Your task to perform on an android device: uninstall "Google Play Music" Image 0: 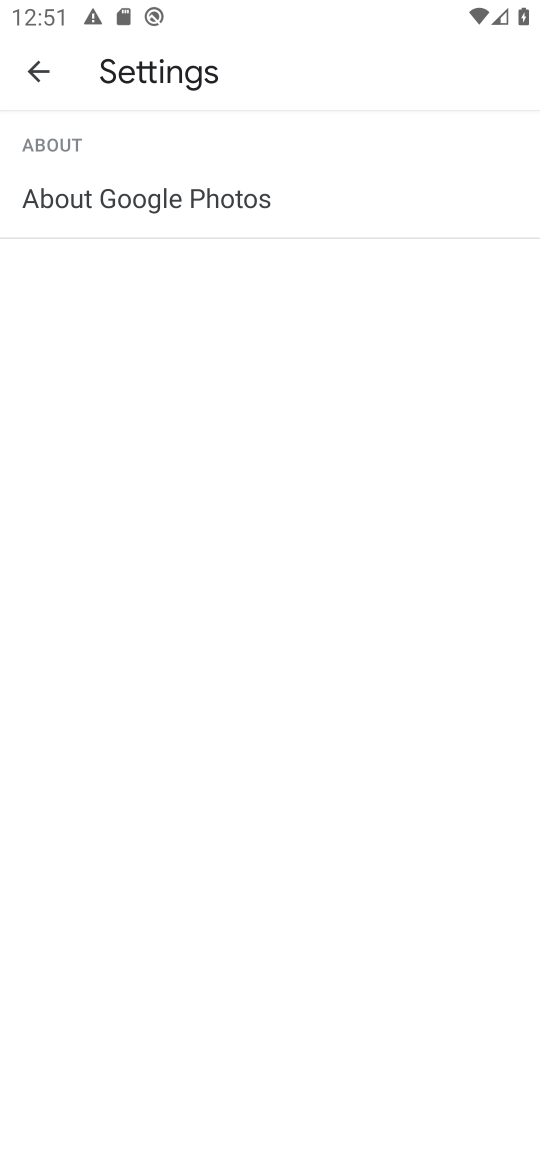
Step 0: press home button
Your task to perform on an android device: uninstall "Google Play Music" Image 1: 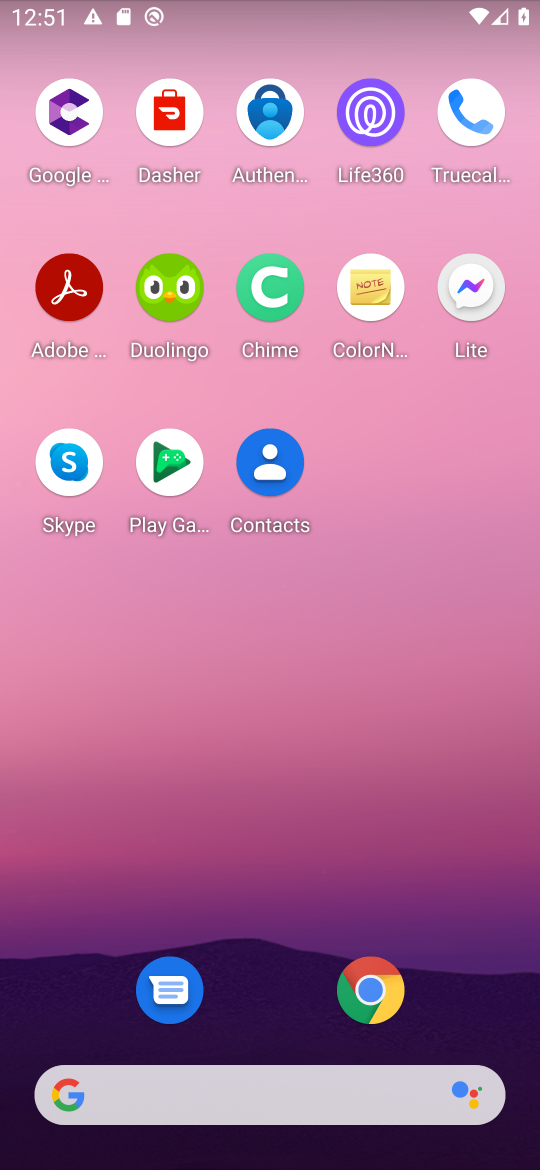
Step 1: drag from (223, 1011) to (260, 278)
Your task to perform on an android device: uninstall "Google Play Music" Image 2: 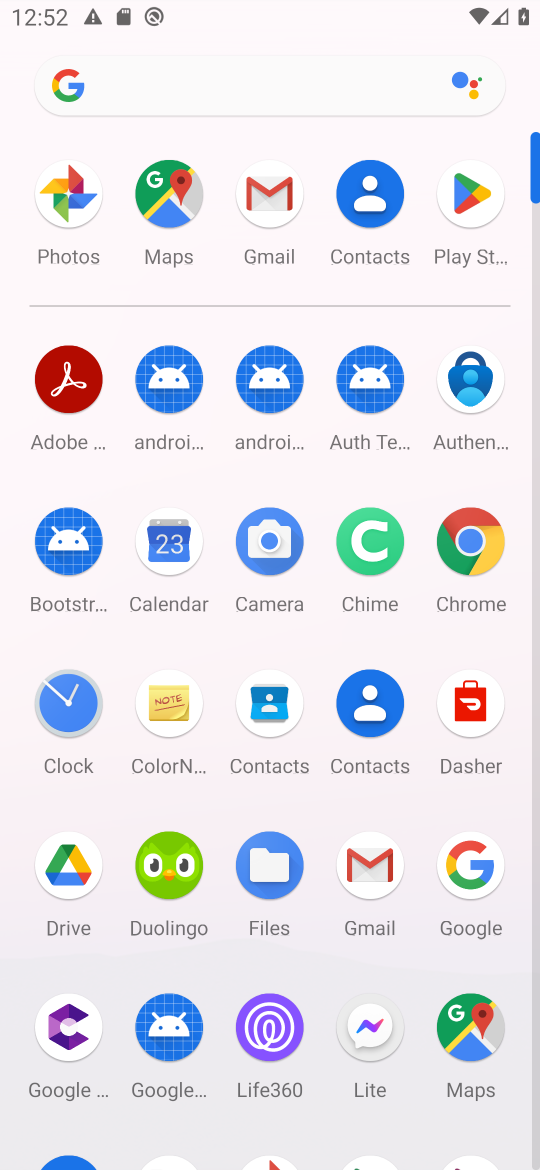
Step 2: click (455, 189)
Your task to perform on an android device: uninstall "Google Play Music" Image 3: 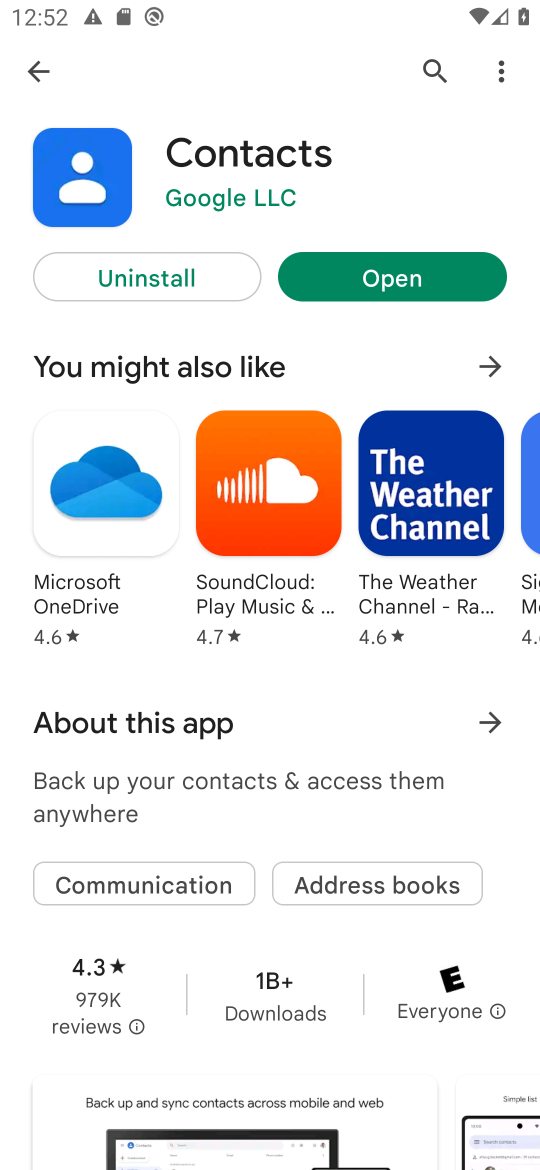
Step 3: click (44, 70)
Your task to perform on an android device: uninstall "Google Play Music" Image 4: 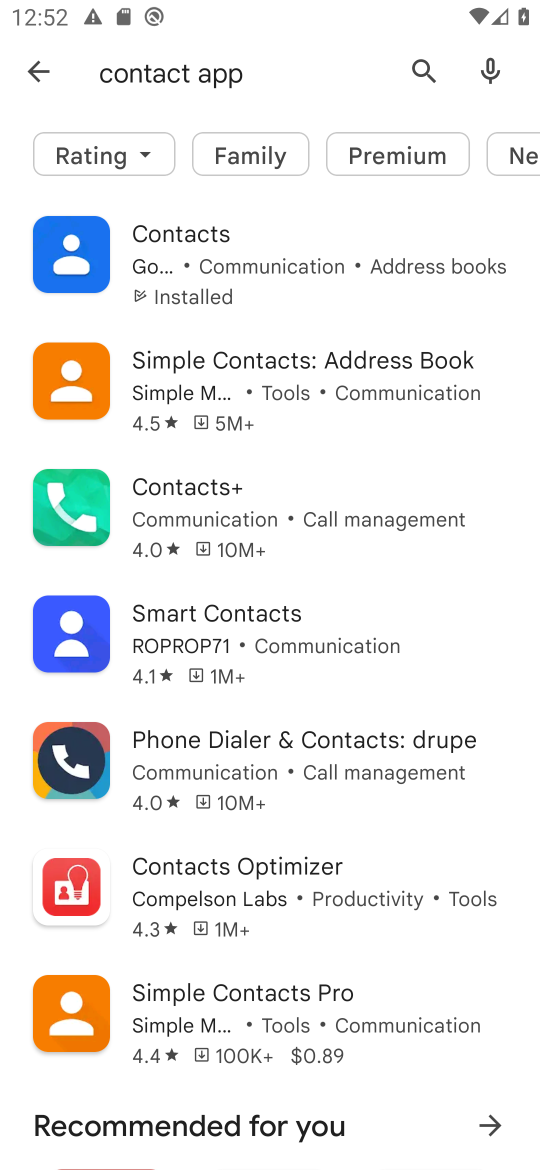
Step 4: click (46, 57)
Your task to perform on an android device: uninstall "Google Play Music" Image 5: 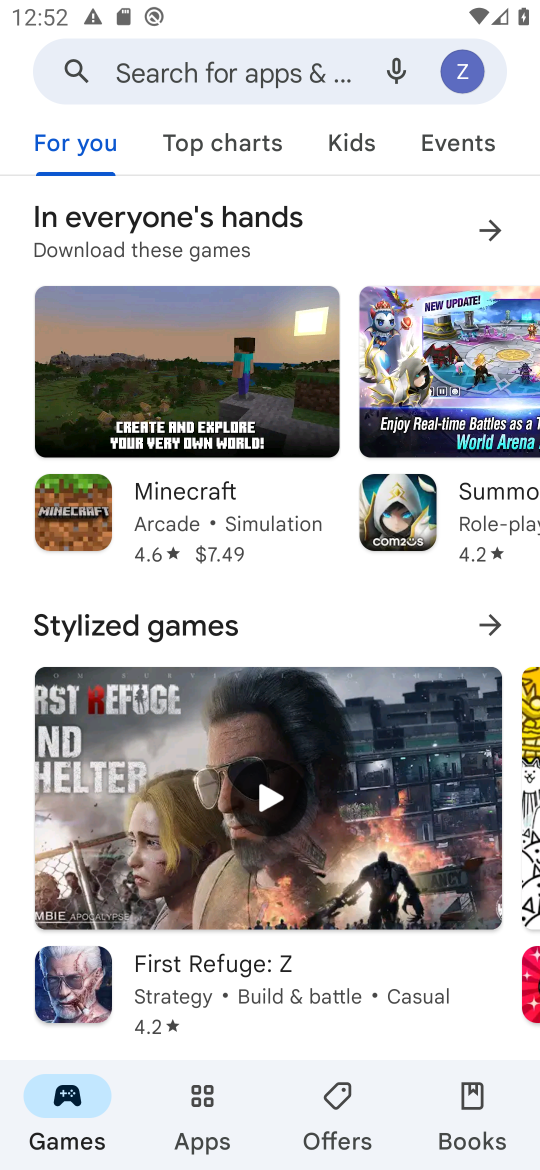
Step 5: click (270, 67)
Your task to perform on an android device: uninstall "Google Play Music" Image 6: 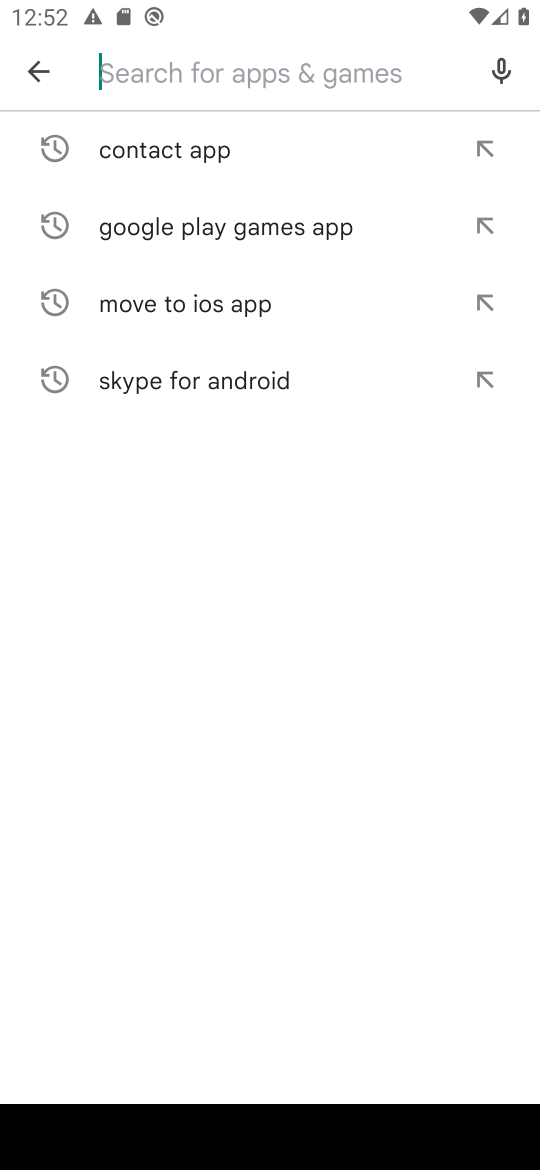
Step 6: type "Google Play Music "
Your task to perform on an android device: uninstall "Google Play Music" Image 7: 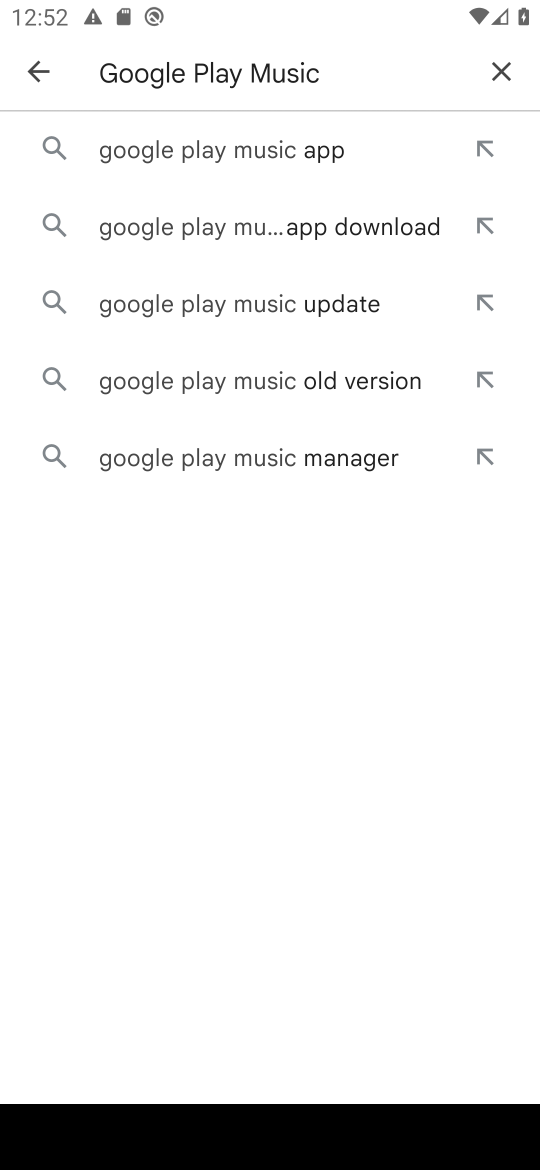
Step 7: click (208, 162)
Your task to perform on an android device: uninstall "Google Play Music" Image 8: 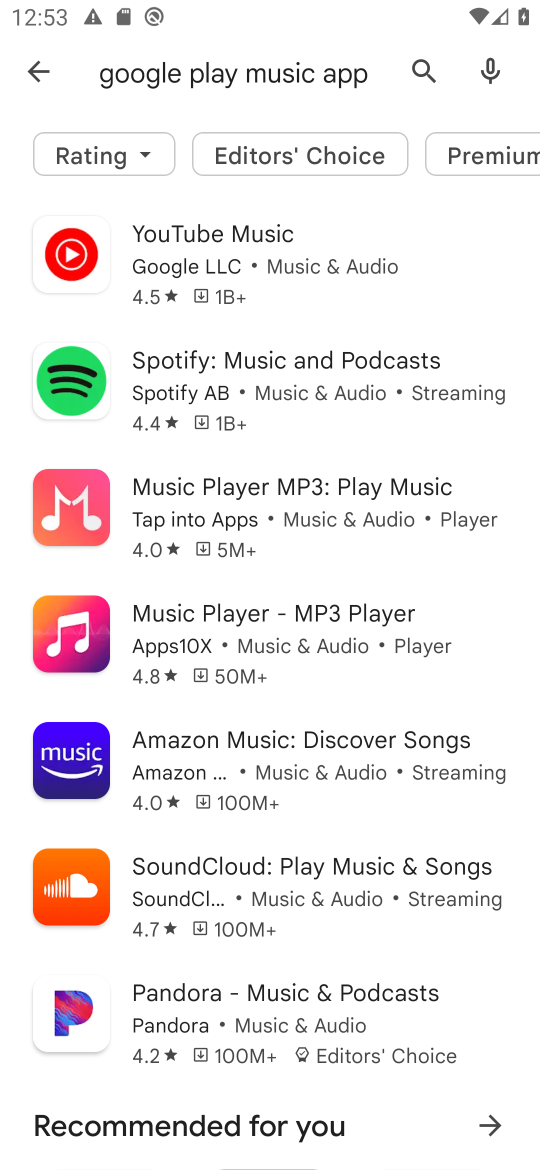
Step 8: click (269, 383)
Your task to perform on an android device: uninstall "Google Play Music" Image 9: 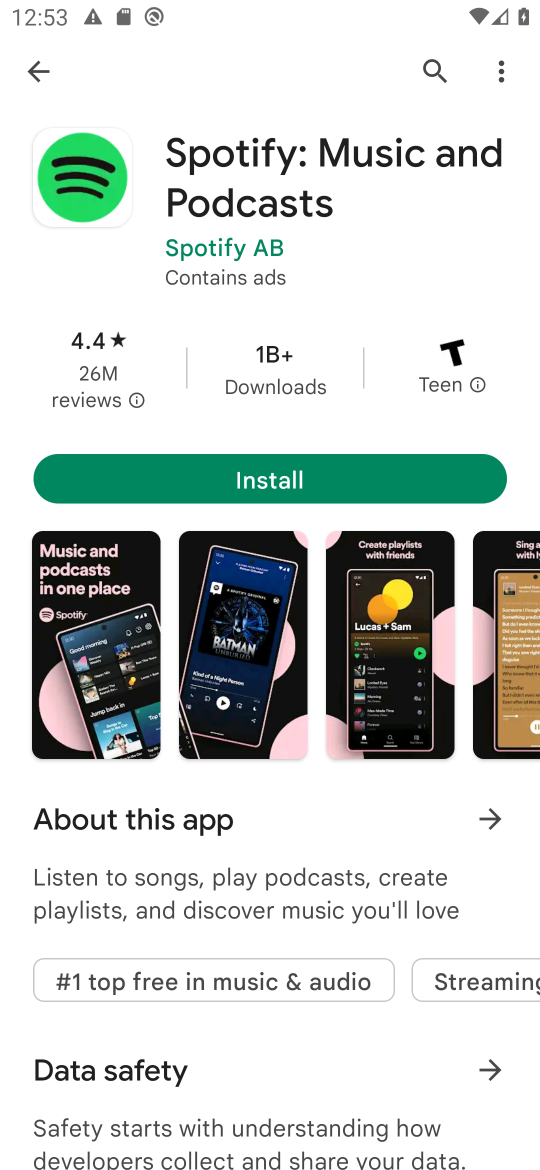
Step 9: click (48, 68)
Your task to perform on an android device: uninstall "Google Play Music" Image 10: 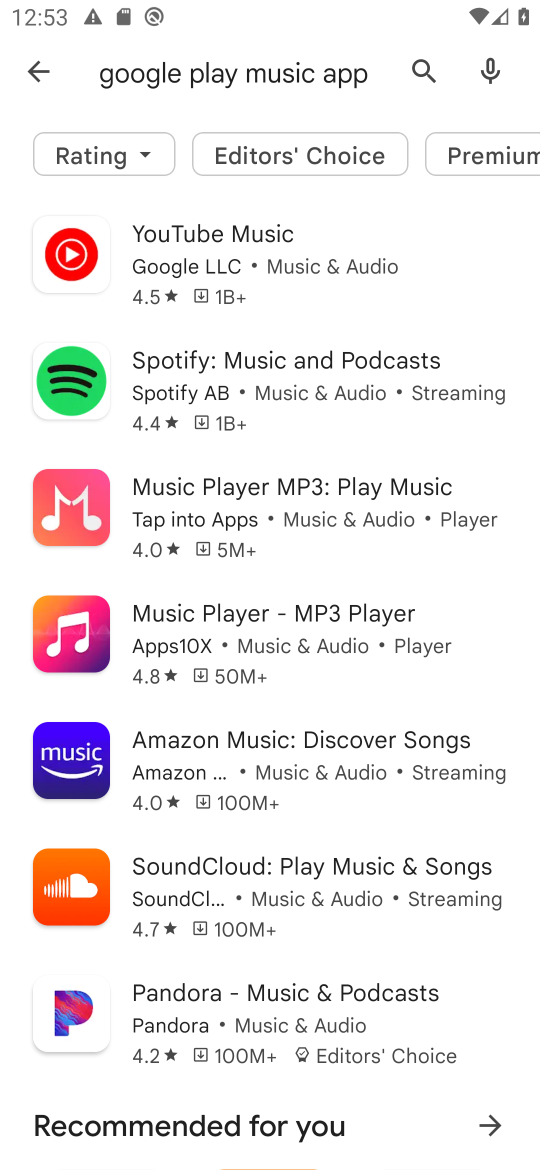
Step 10: click (201, 255)
Your task to perform on an android device: uninstall "Google Play Music" Image 11: 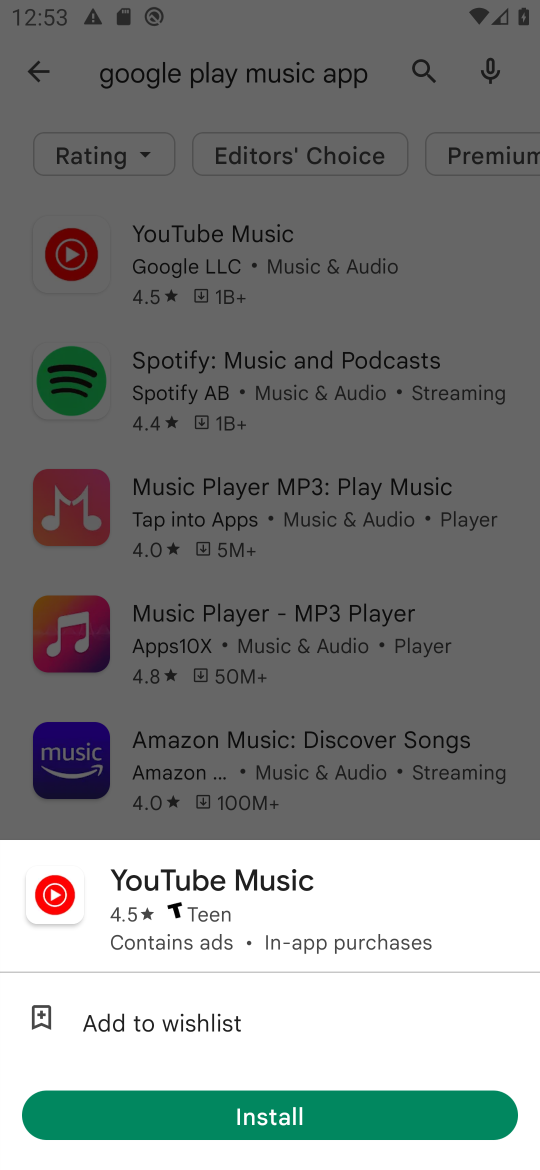
Step 11: click (71, 80)
Your task to perform on an android device: uninstall "Google Play Music" Image 12: 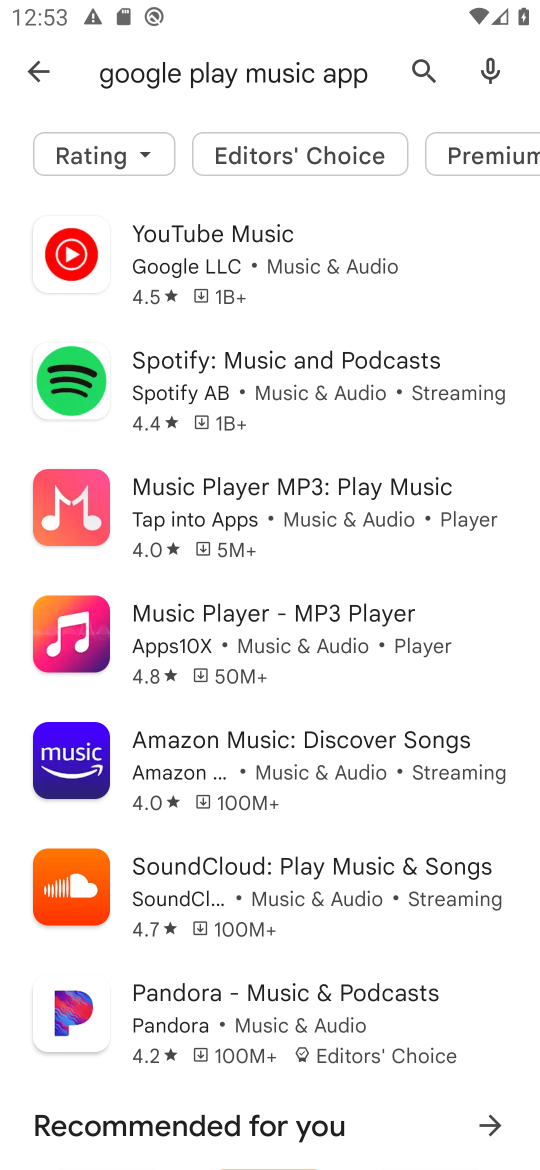
Step 12: task complete